Your task to perform on an android device: check out phone information Image 0: 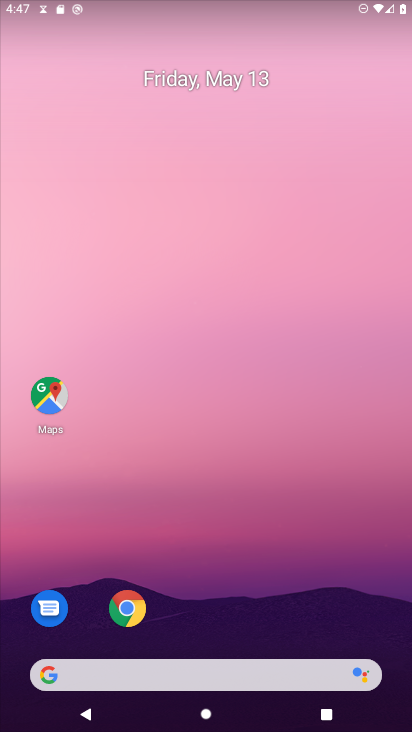
Step 0: drag from (238, 673) to (264, 0)
Your task to perform on an android device: check out phone information Image 1: 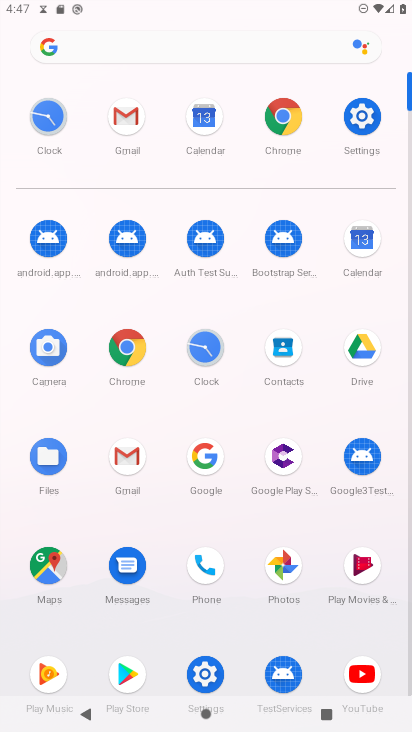
Step 1: click (208, 668)
Your task to perform on an android device: check out phone information Image 2: 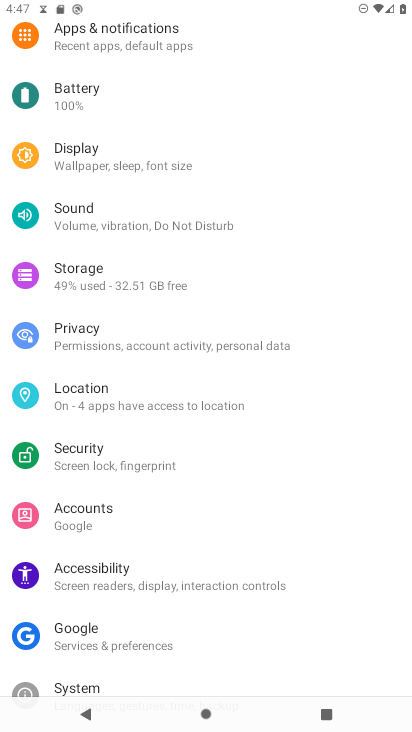
Step 2: drag from (227, 657) to (298, 87)
Your task to perform on an android device: check out phone information Image 3: 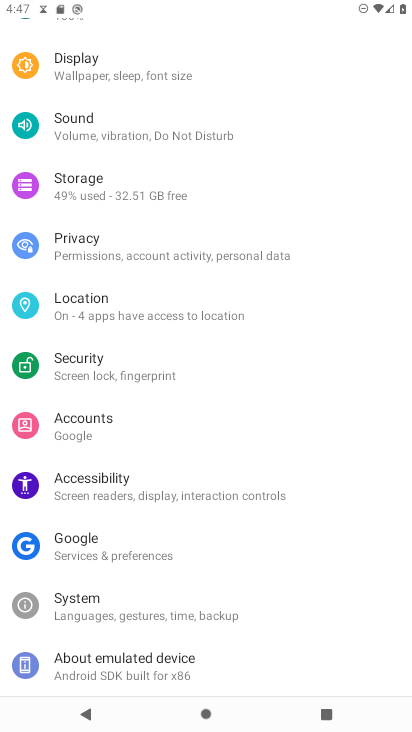
Step 3: click (221, 675)
Your task to perform on an android device: check out phone information Image 4: 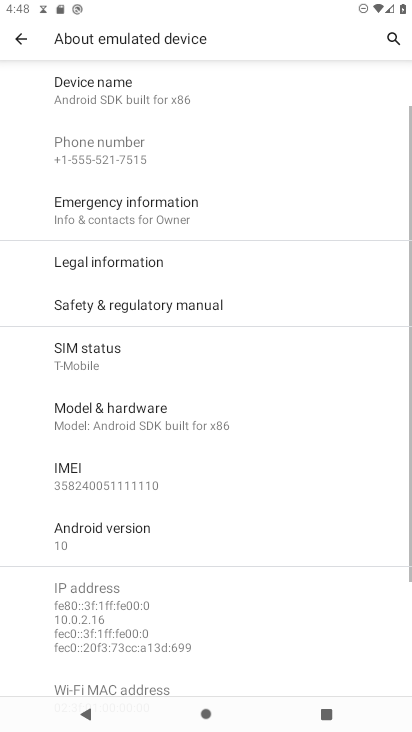
Step 4: task complete